Your task to perform on an android device: allow notifications from all sites in the chrome app Image 0: 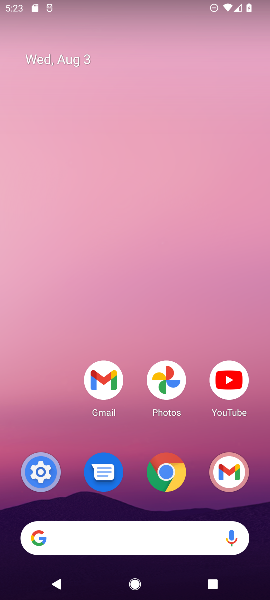
Step 0: drag from (208, 505) to (89, 15)
Your task to perform on an android device: allow notifications from all sites in the chrome app Image 1: 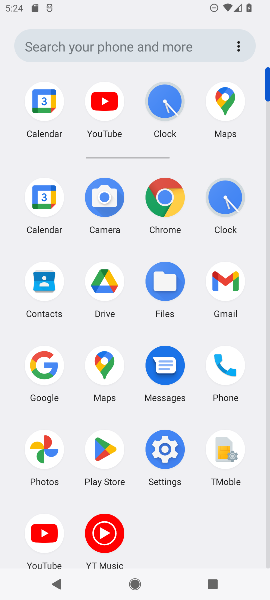
Step 1: click (166, 189)
Your task to perform on an android device: allow notifications from all sites in the chrome app Image 2: 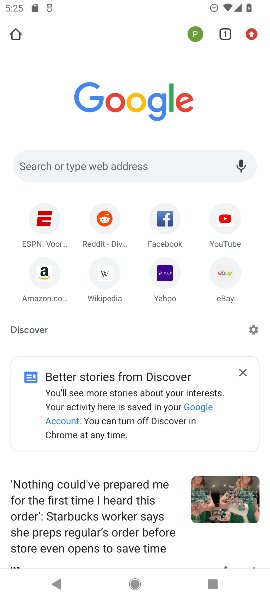
Step 2: click (252, 38)
Your task to perform on an android device: allow notifications from all sites in the chrome app Image 3: 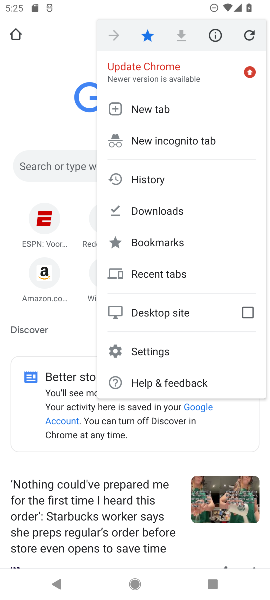
Step 3: click (148, 355)
Your task to perform on an android device: allow notifications from all sites in the chrome app Image 4: 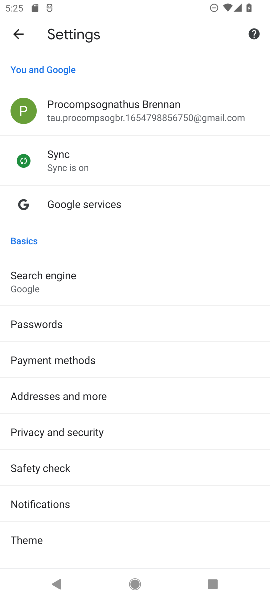
Step 4: click (58, 505)
Your task to perform on an android device: allow notifications from all sites in the chrome app Image 5: 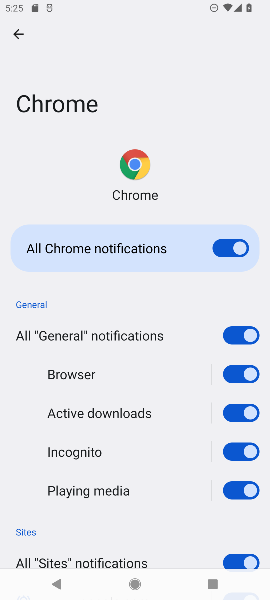
Step 5: task complete